Your task to perform on an android device: delete the emails in spam in the gmail app Image 0: 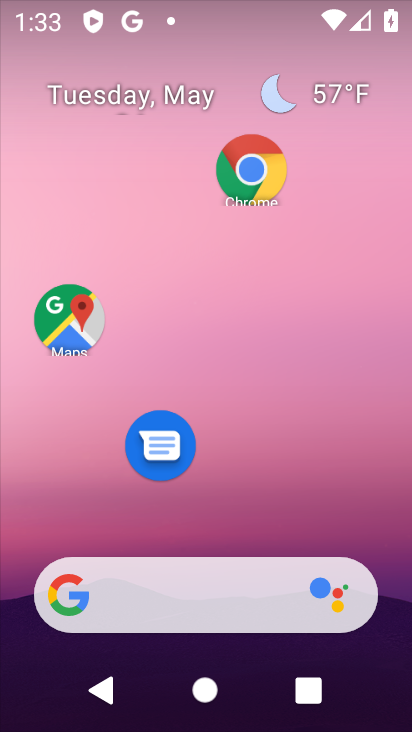
Step 0: drag from (227, 723) to (223, 145)
Your task to perform on an android device: delete the emails in spam in the gmail app Image 1: 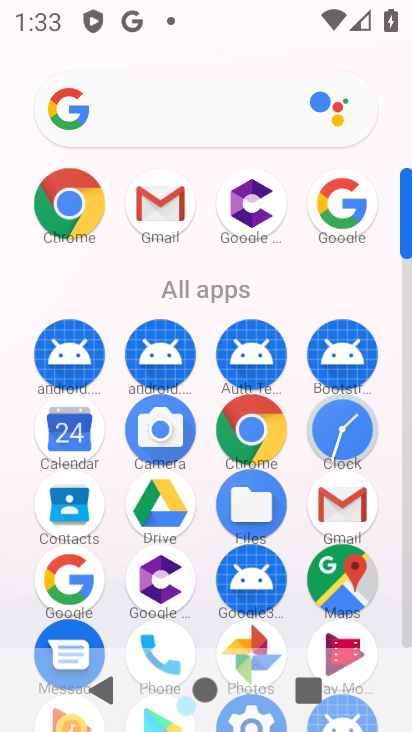
Step 1: click (357, 499)
Your task to perform on an android device: delete the emails in spam in the gmail app Image 2: 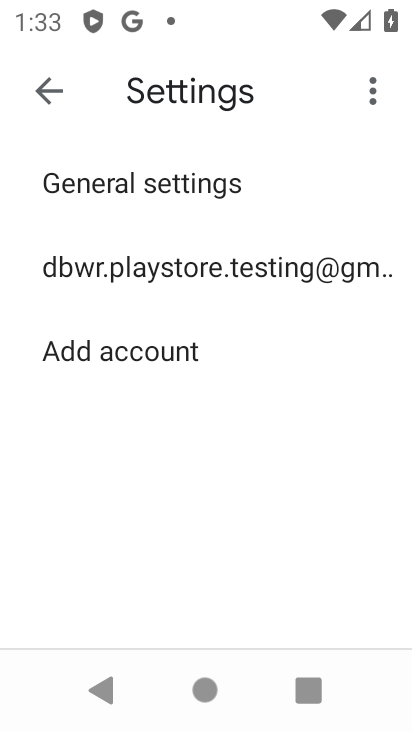
Step 2: click (50, 86)
Your task to perform on an android device: delete the emails in spam in the gmail app Image 3: 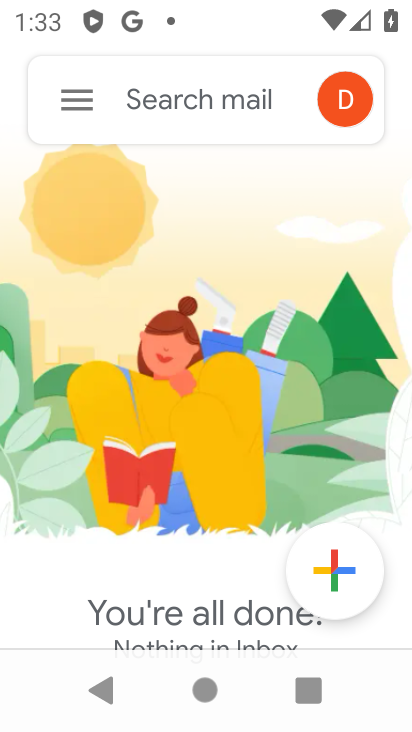
Step 3: click (83, 100)
Your task to perform on an android device: delete the emails in spam in the gmail app Image 4: 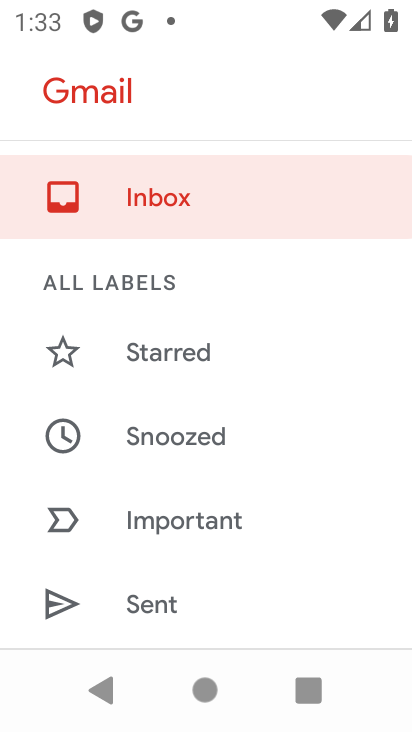
Step 4: drag from (228, 593) to (227, 331)
Your task to perform on an android device: delete the emails in spam in the gmail app Image 5: 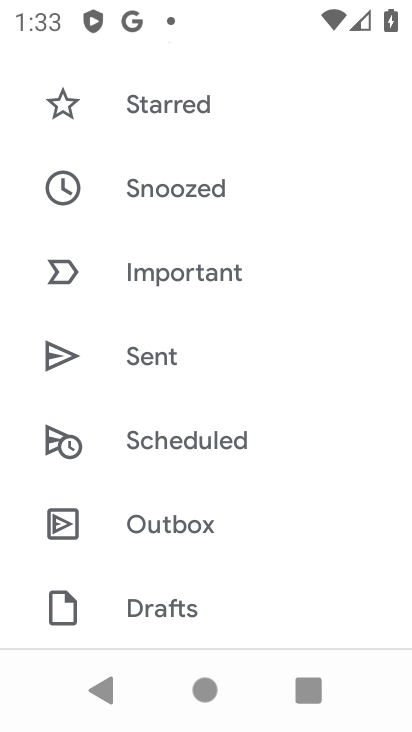
Step 5: drag from (193, 579) to (205, 254)
Your task to perform on an android device: delete the emails in spam in the gmail app Image 6: 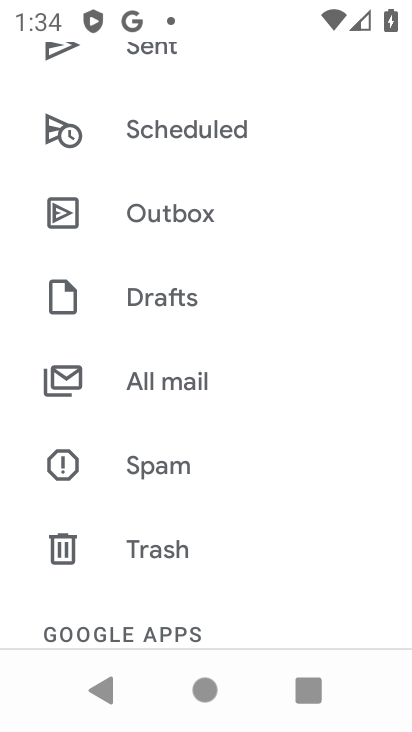
Step 6: click (173, 472)
Your task to perform on an android device: delete the emails in spam in the gmail app Image 7: 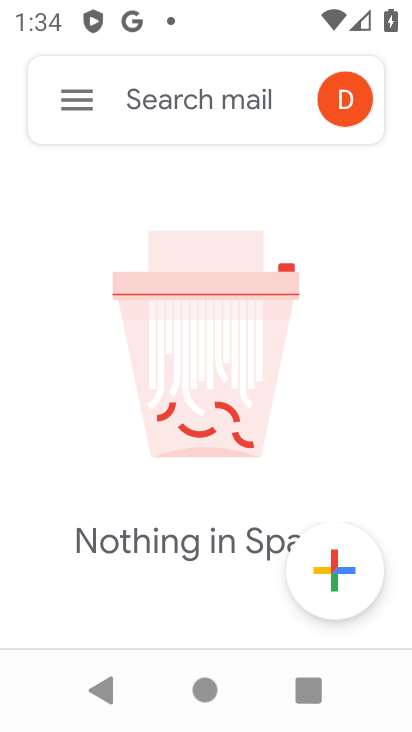
Step 7: task complete